Your task to perform on an android device: check battery use Image 0: 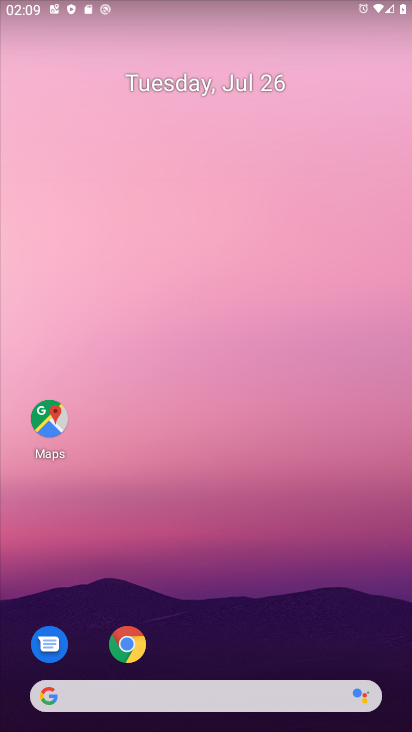
Step 0: drag from (270, 537) to (270, 174)
Your task to perform on an android device: check battery use Image 1: 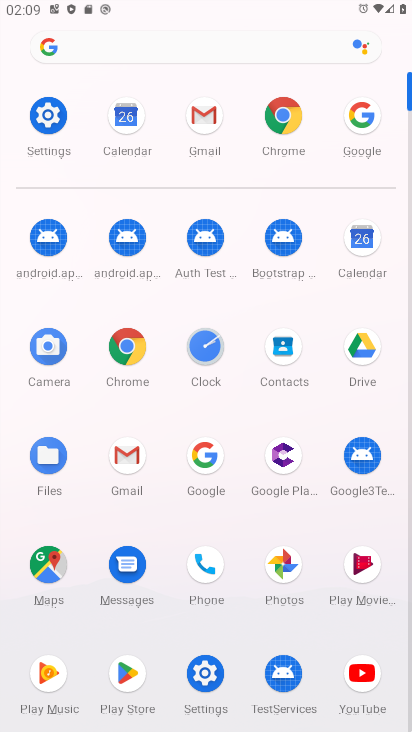
Step 1: click (51, 113)
Your task to perform on an android device: check battery use Image 2: 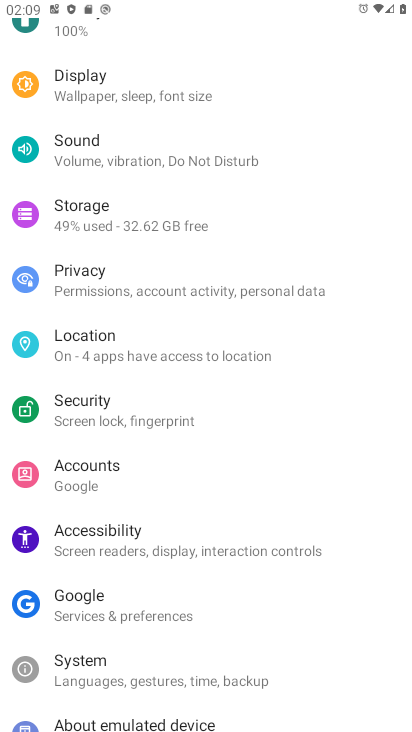
Step 2: click (51, 113)
Your task to perform on an android device: check battery use Image 3: 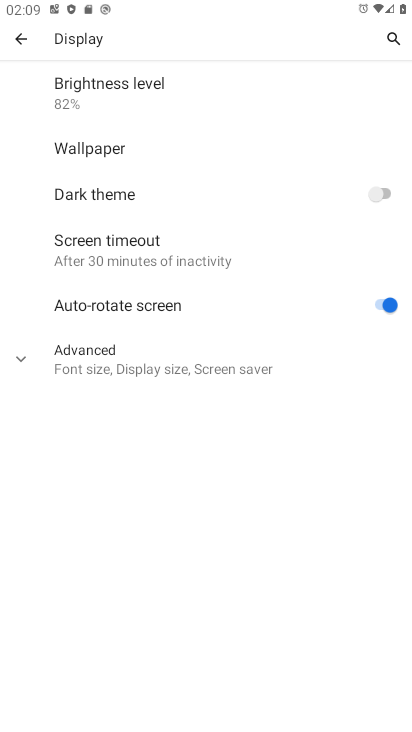
Step 3: click (21, 33)
Your task to perform on an android device: check battery use Image 4: 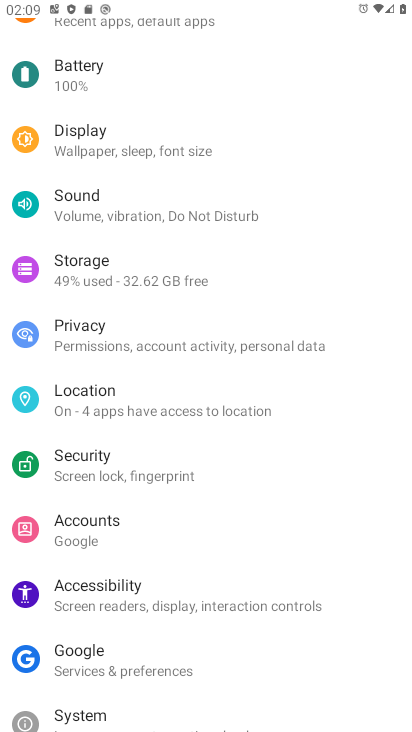
Step 4: click (93, 67)
Your task to perform on an android device: check battery use Image 5: 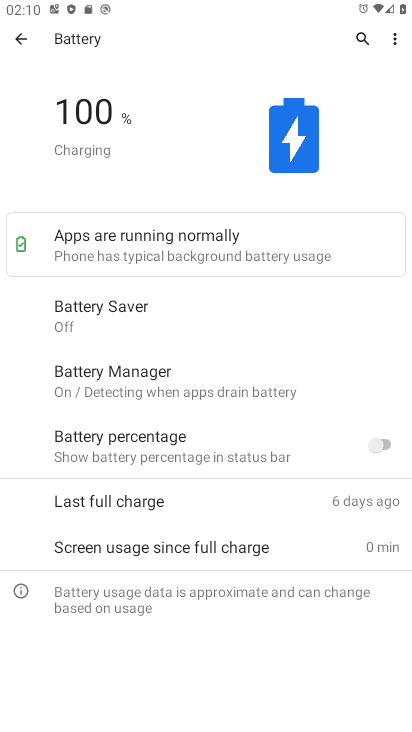
Step 5: task complete